Your task to perform on an android device: turn on the 24-hour format for clock Image 0: 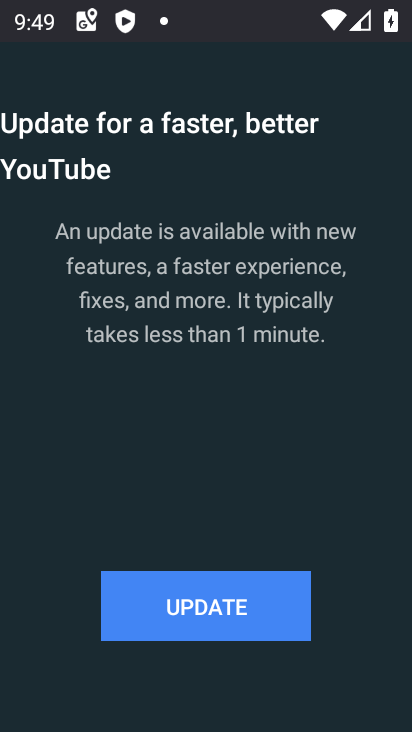
Step 0: press home button
Your task to perform on an android device: turn on the 24-hour format for clock Image 1: 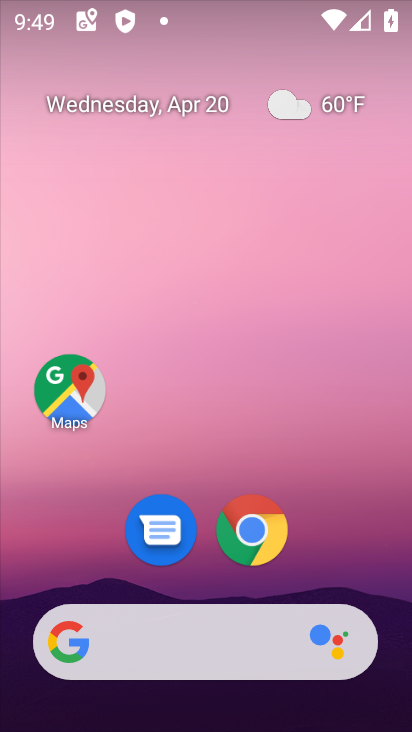
Step 1: drag from (378, 430) to (407, 82)
Your task to perform on an android device: turn on the 24-hour format for clock Image 2: 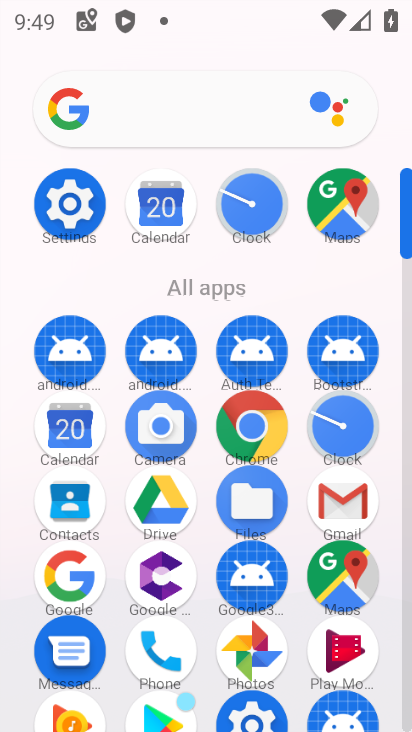
Step 2: click (241, 210)
Your task to perform on an android device: turn on the 24-hour format for clock Image 3: 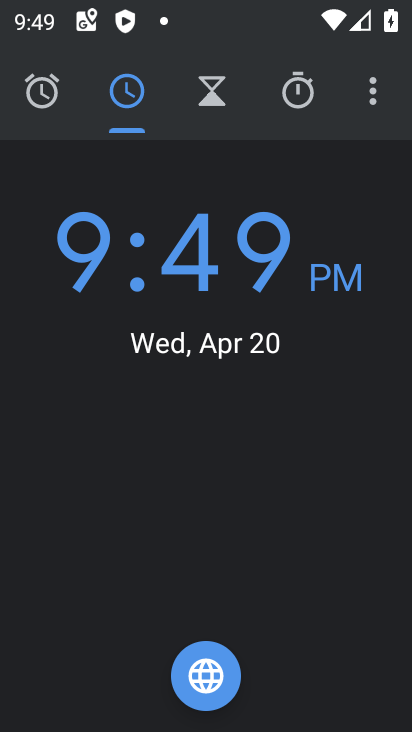
Step 3: click (375, 94)
Your task to perform on an android device: turn on the 24-hour format for clock Image 4: 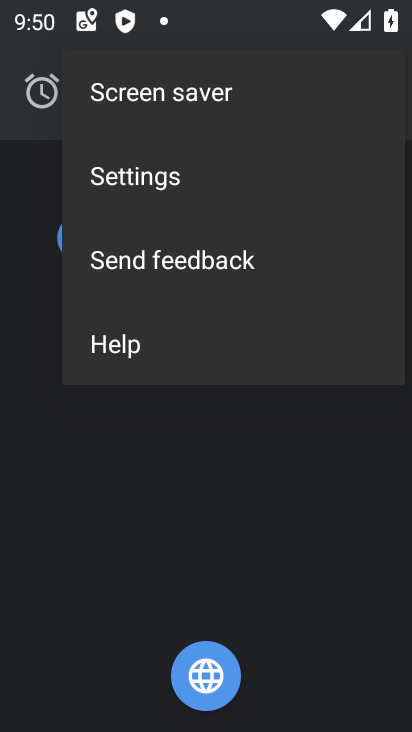
Step 4: click (241, 177)
Your task to perform on an android device: turn on the 24-hour format for clock Image 5: 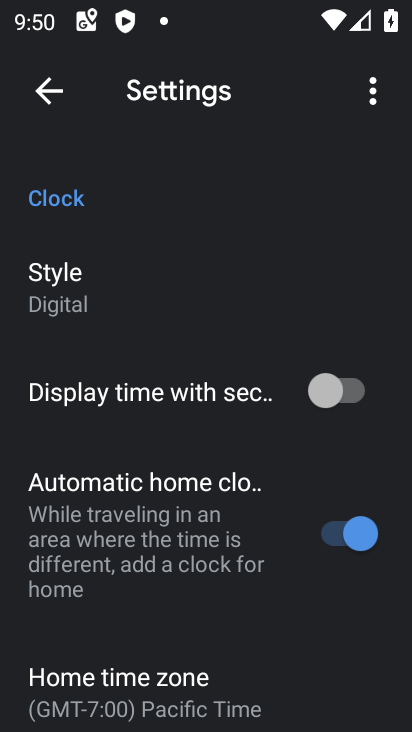
Step 5: drag from (191, 582) to (337, 218)
Your task to perform on an android device: turn on the 24-hour format for clock Image 6: 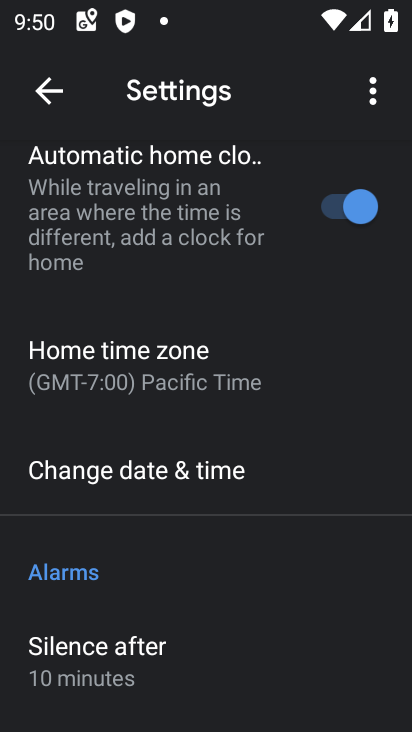
Step 6: click (260, 475)
Your task to perform on an android device: turn on the 24-hour format for clock Image 7: 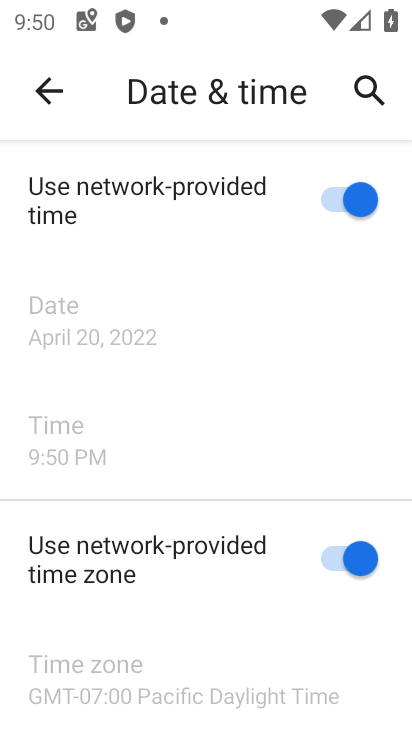
Step 7: drag from (230, 594) to (271, 320)
Your task to perform on an android device: turn on the 24-hour format for clock Image 8: 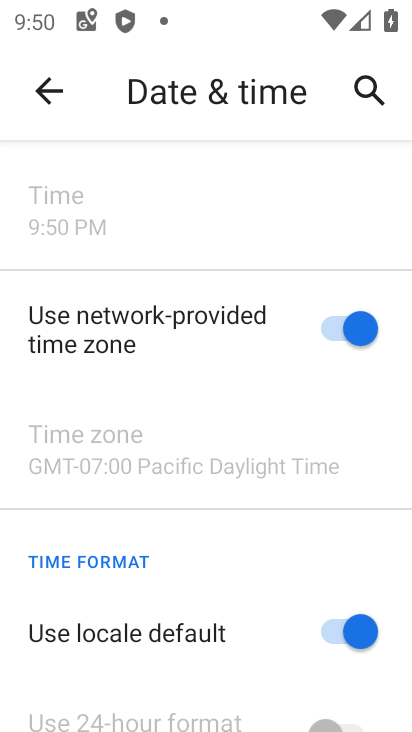
Step 8: drag from (231, 624) to (265, 353)
Your task to perform on an android device: turn on the 24-hour format for clock Image 9: 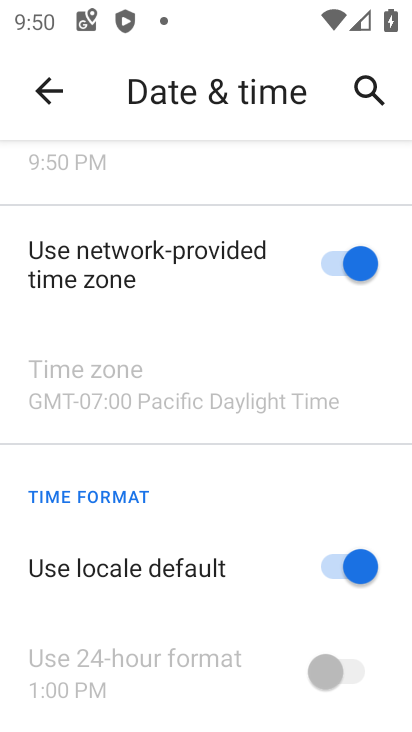
Step 9: click (340, 575)
Your task to perform on an android device: turn on the 24-hour format for clock Image 10: 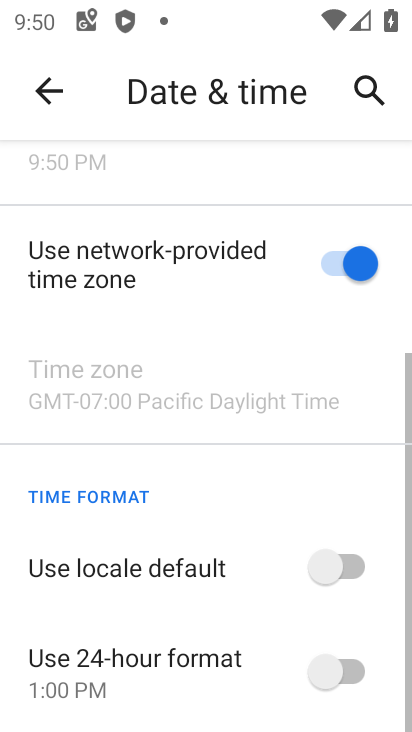
Step 10: click (345, 656)
Your task to perform on an android device: turn on the 24-hour format for clock Image 11: 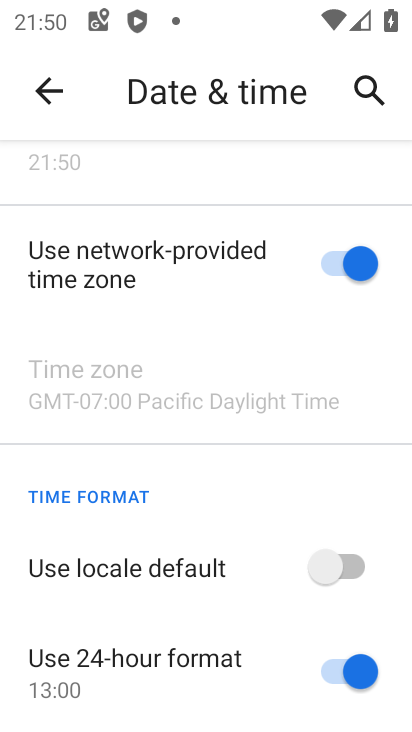
Step 11: task complete